Your task to perform on an android device: create a new album in the google photos Image 0: 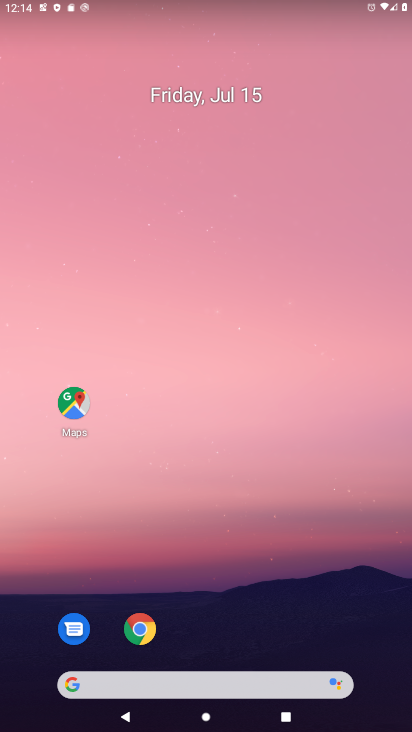
Step 0: press home button
Your task to perform on an android device: create a new album in the google photos Image 1: 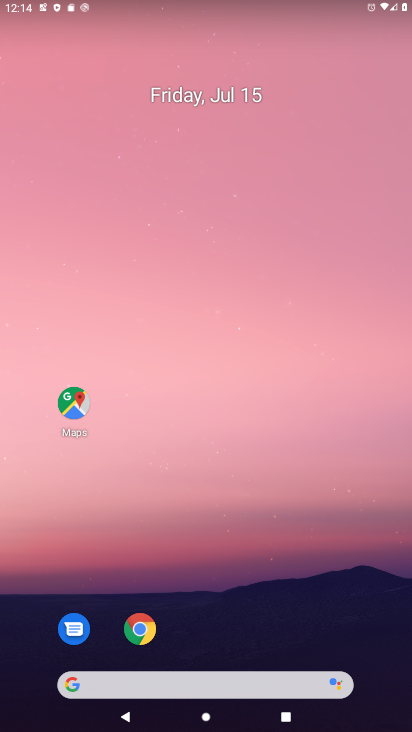
Step 1: drag from (230, 645) to (214, 1)
Your task to perform on an android device: create a new album in the google photos Image 2: 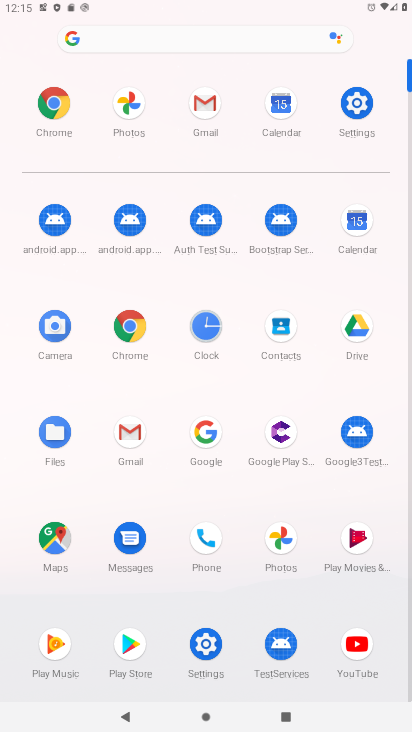
Step 2: click (126, 101)
Your task to perform on an android device: create a new album in the google photos Image 3: 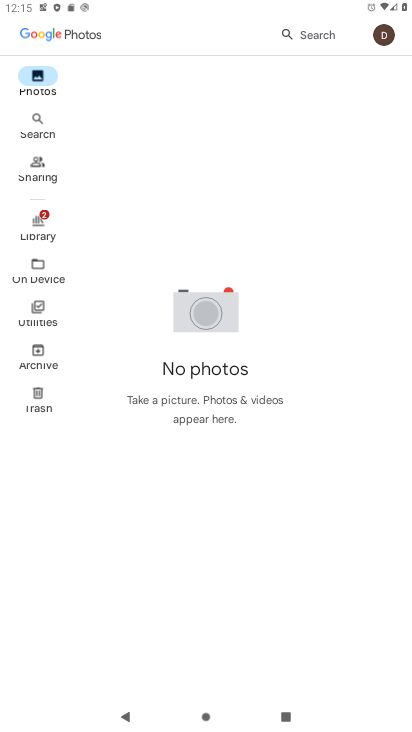
Step 3: click (43, 223)
Your task to perform on an android device: create a new album in the google photos Image 4: 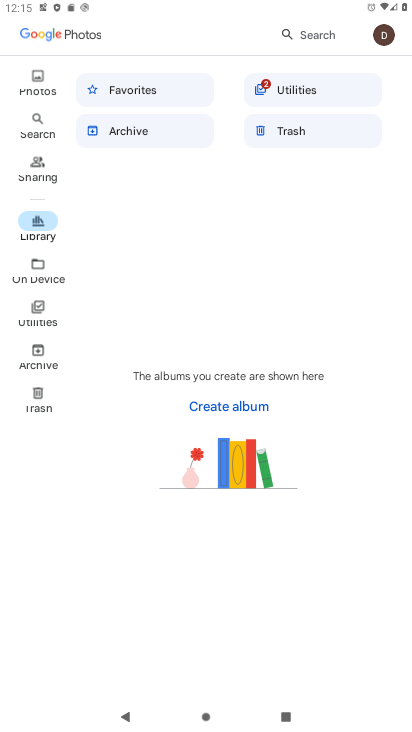
Step 4: click (42, 79)
Your task to perform on an android device: create a new album in the google photos Image 5: 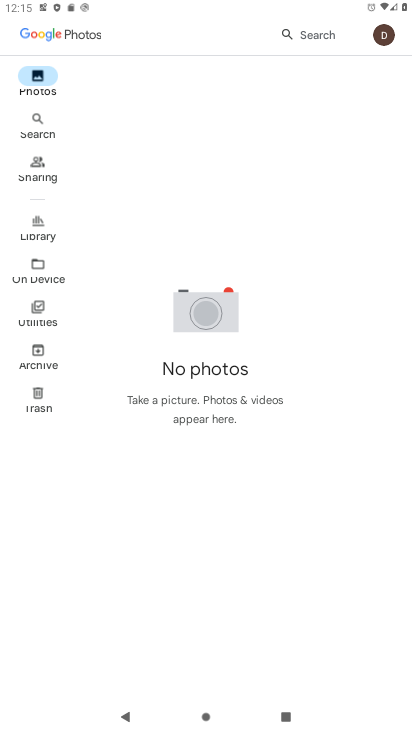
Step 5: task complete